Your task to perform on an android device: Is it going to rain today? Image 0: 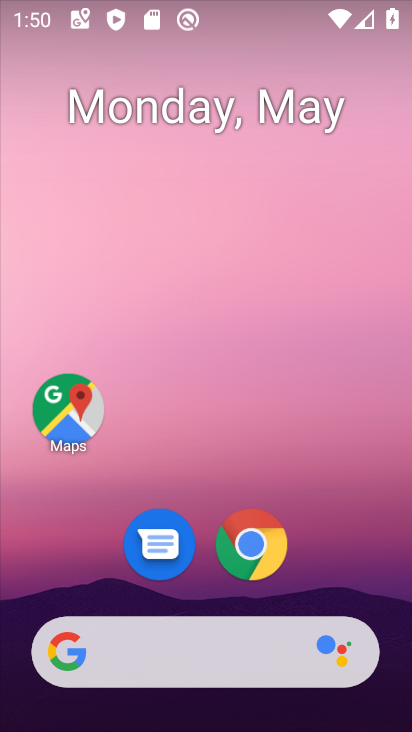
Step 0: click (265, 634)
Your task to perform on an android device: Is it going to rain today? Image 1: 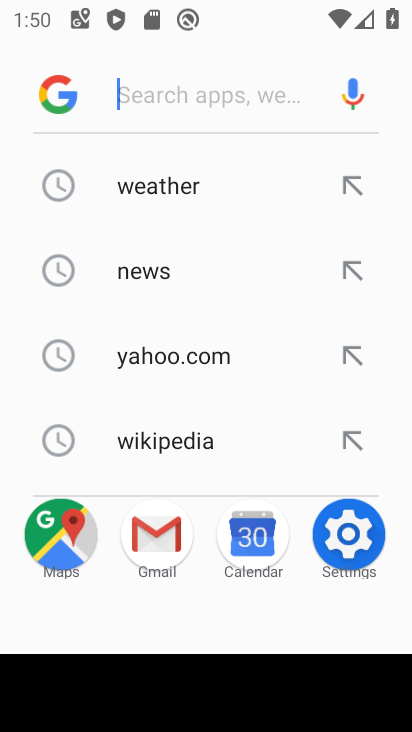
Step 1: click (164, 197)
Your task to perform on an android device: Is it going to rain today? Image 2: 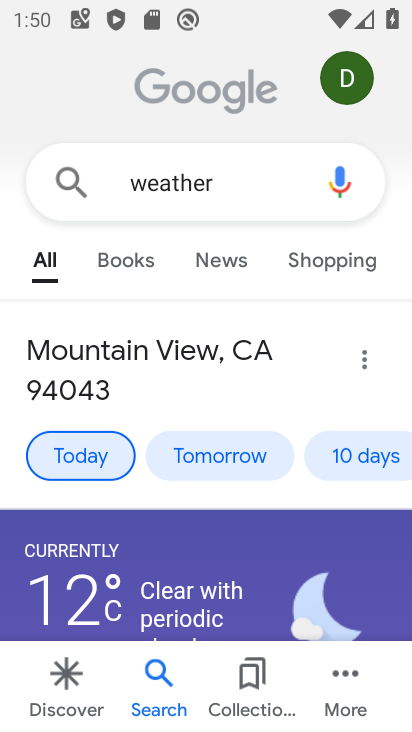
Step 2: click (85, 452)
Your task to perform on an android device: Is it going to rain today? Image 3: 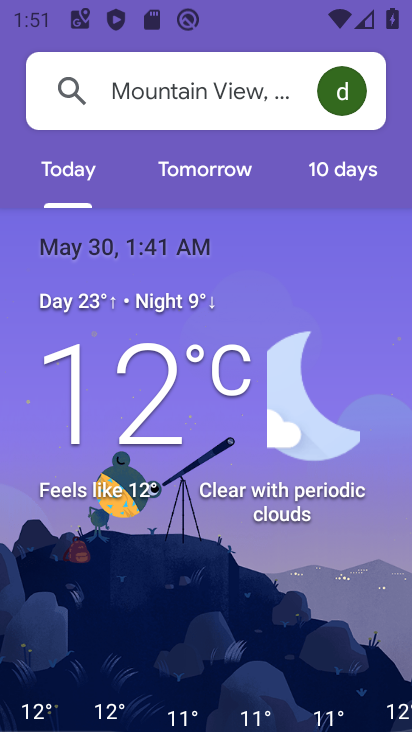
Step 3: task complete